Your task to perform on an android device: toggle data saver in the chrome app Image 0: 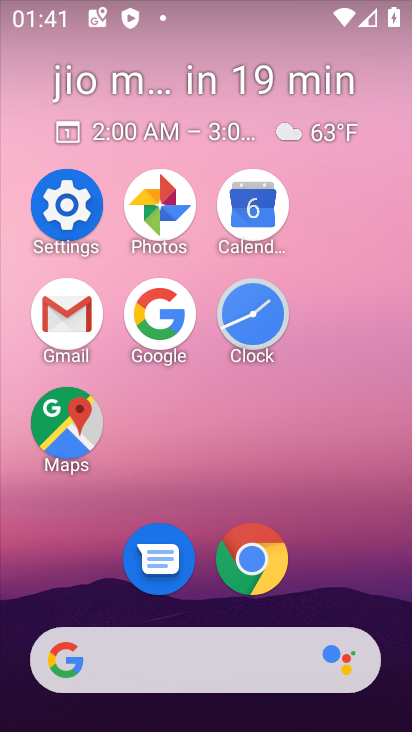
Step 0: click (228, 562)
Your task to perform on an android device: toggle data saver in the chrome app Image 1: 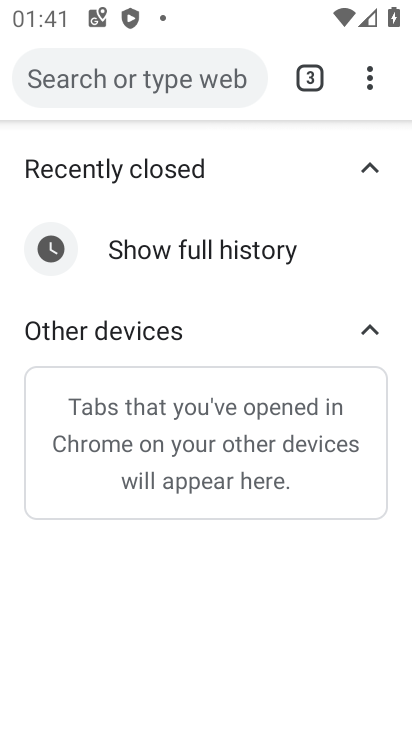
Step 1: click (371, 68)
Your task to perform on an android device: toggle data saver in the chrome app Image 2: 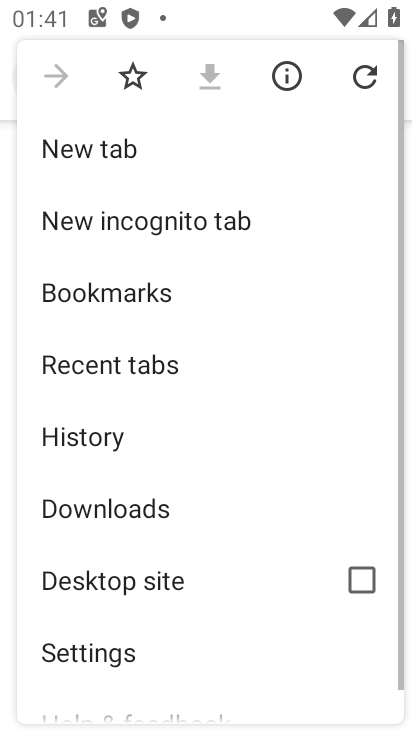
Step 2: drag from (153, 541) to (196, 239)
Your task to perform on an android device: toggle data saver in the chrome app Image 3: 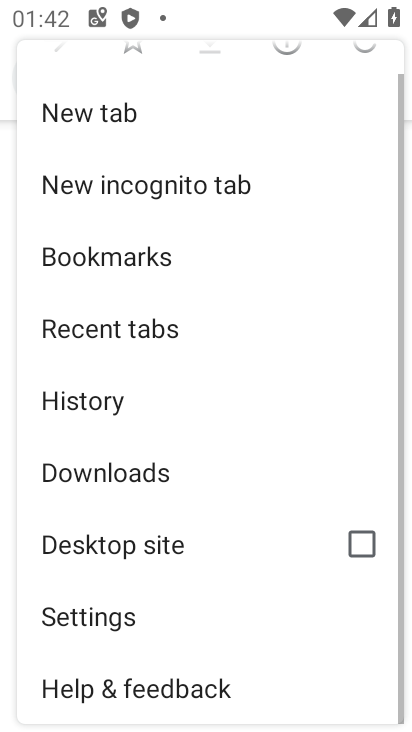
Step 3: click (112, 624)
Your task to perform on an android device: toggle data saver in the chrome app Image 4: 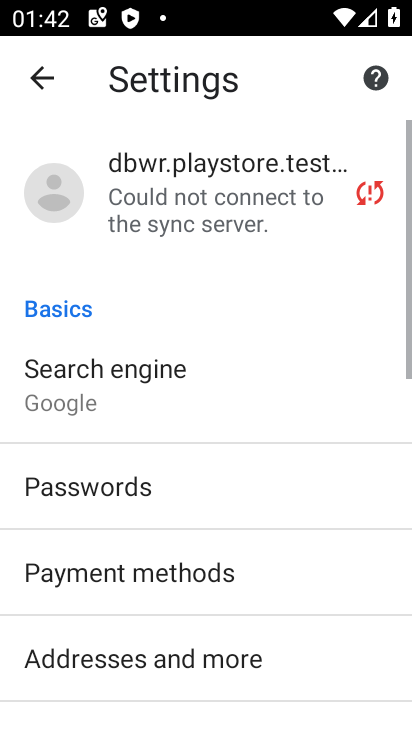
Step 4: drag from (122, 603) to (171, 201)
Your task to perform on an android device: toggle data saver in the chrome app Image 5: 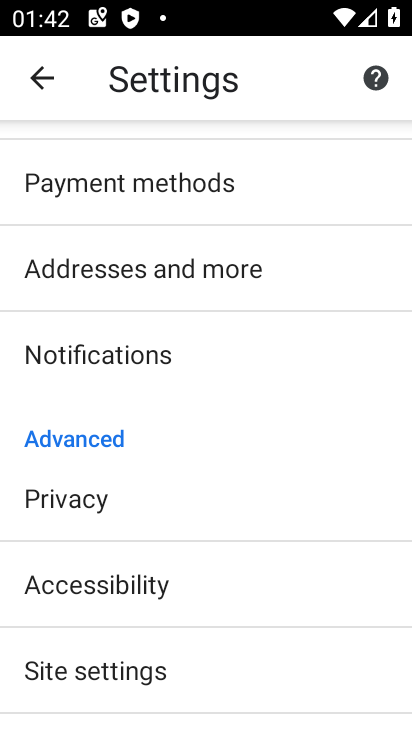
Step 5: drag from (198, 608) to (238, 297)
Your task to perform on an android device: toggle data saver in the chrome app Image 6: 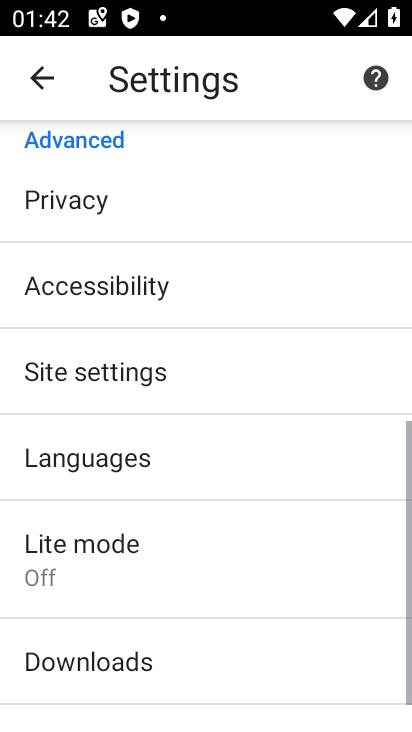
Step 6: drag from (166, 603) to (233, 283)
Your task to perform on an android device: toggle data saver in the chrome app Image 7: 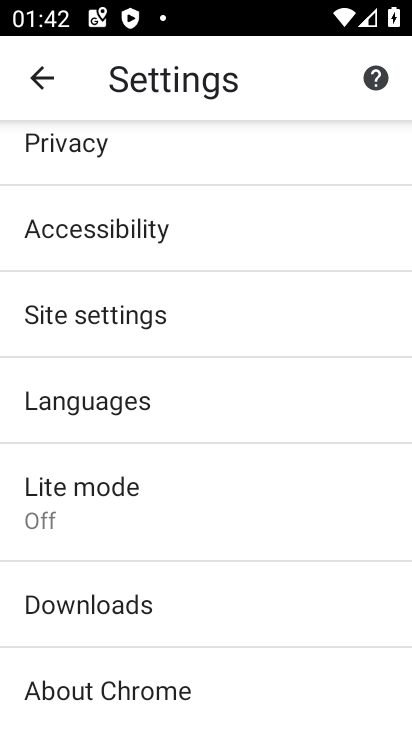
Step 7: click (179, 492)
Your task to perform on an android device: toggle data saver in the chrome app Image 8: 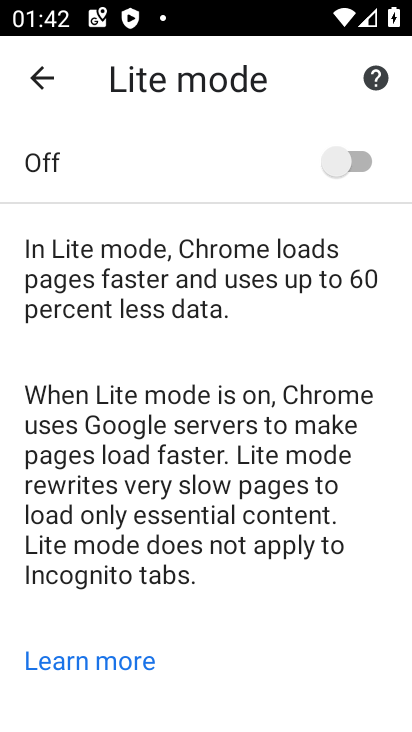
Step 8: click (347, 143)
Your task to perform on an android device: toggle data saver in the chrome app Image 9: 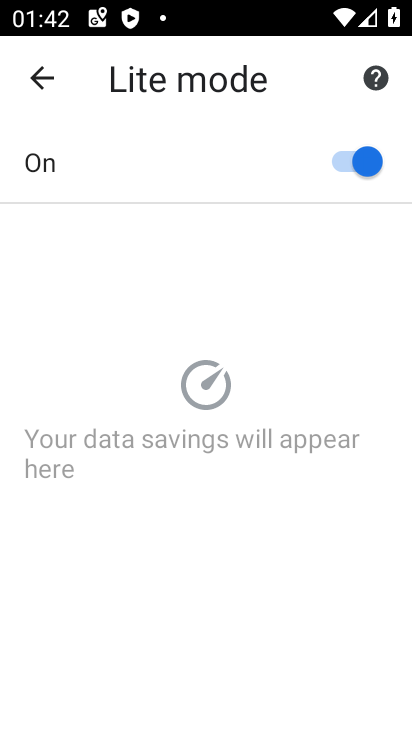
Step 9: task complete